Your task to perform on an android device: turn off data saver in the chrome app Image 0: 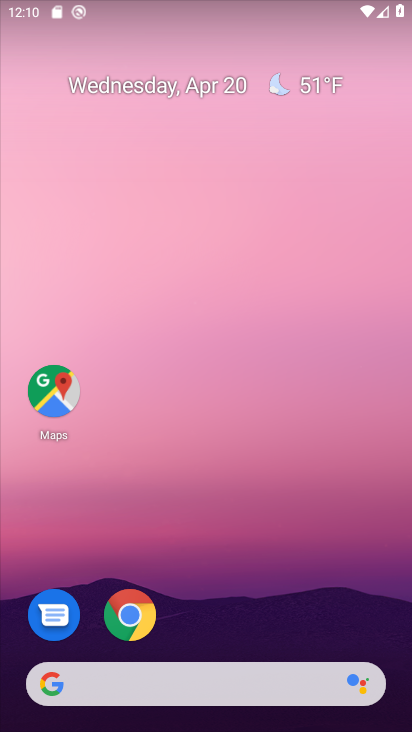
Step 0: click (140, 616)
Your task to perform on an android device: turn off data saver in the chrome app Image 1: 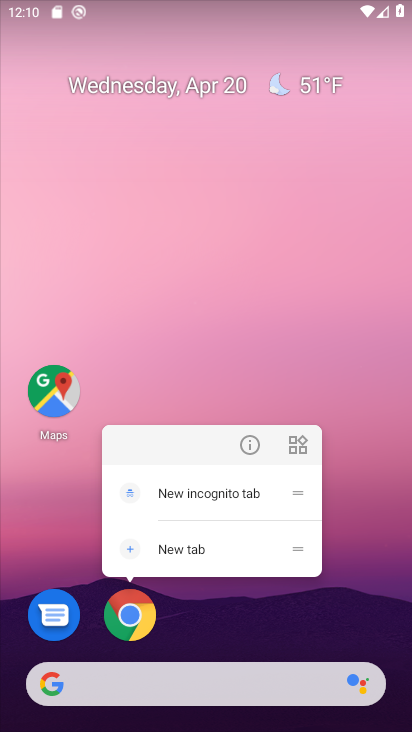
Step 1: click (146, 615)
Your task to perform on an android device: turn off data saver in the chrome app Image 2: 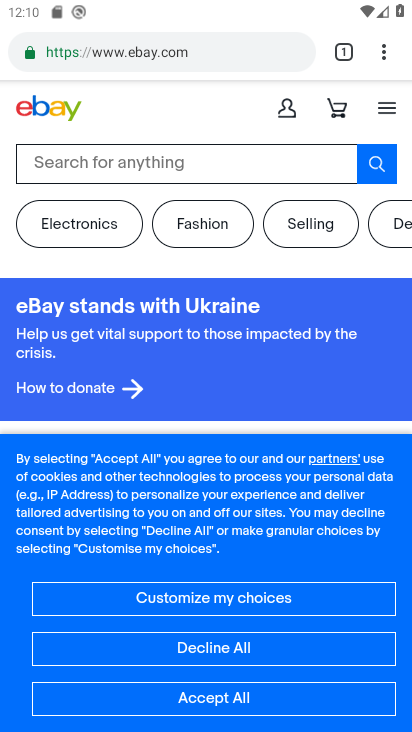
Step 2: drag from (382, 52) to (241, 634)
Your task to perform on an android device: turn off data saver in the chrome app Image 3: 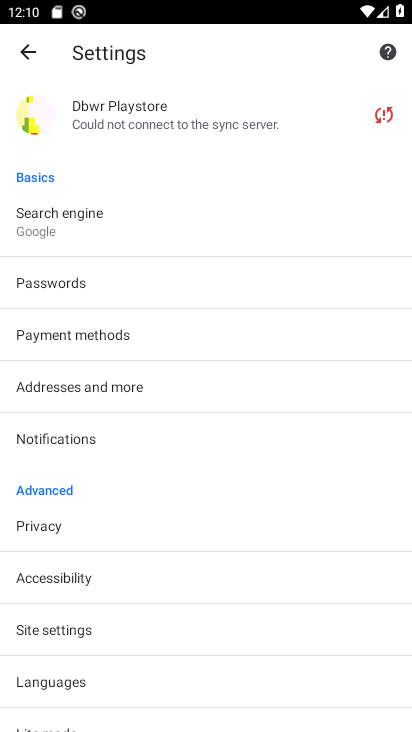
Step 3: drag from (129, 624) to (151, 194)
Your task to perform on an android device: turn off data saver in the chrome app Image 4: 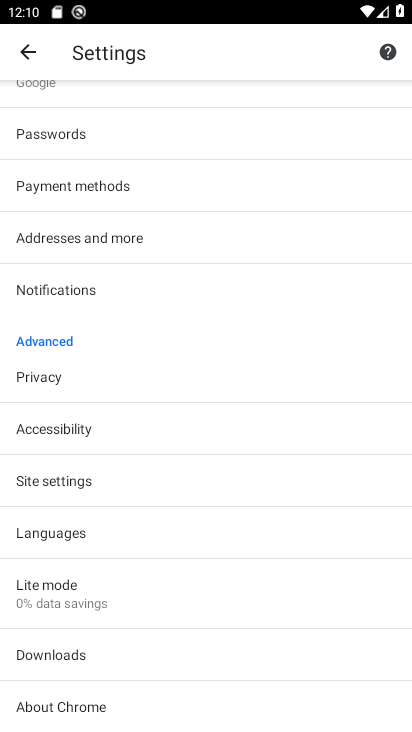
Step 4: click (119, 608)
Your task to perform on an android device: turn off data saver in the chrome app Image 5: 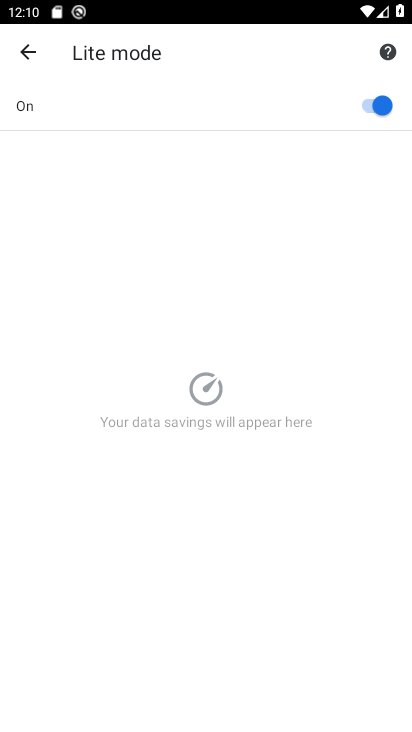
Step 5: click (374, 110)
Your task to perform on an android device: turn off data saver in the chrome app Image 6: 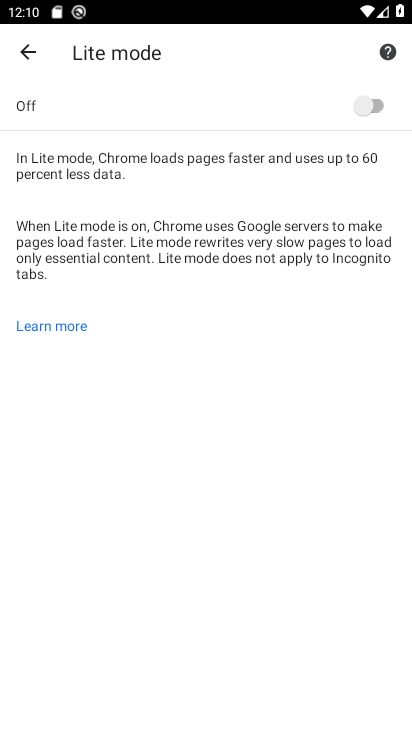
Step 6: task complete